Your task to perform on an android device: Who is the president of France? Image 0: 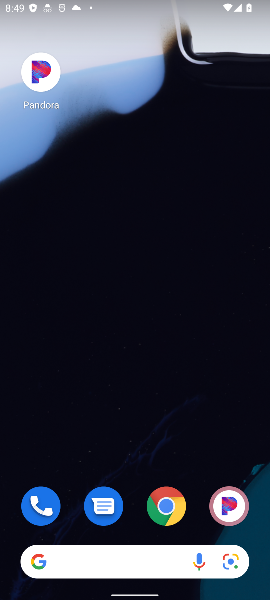
Step 0: click (170, 512)
Your task to perform on an android device: Who is the president of France? Image 1: 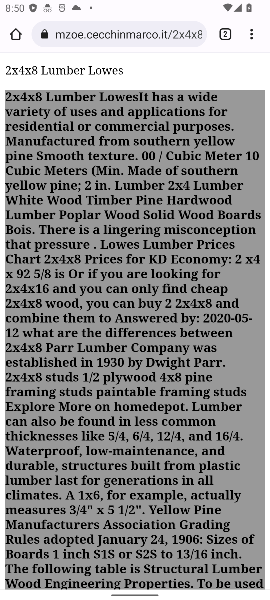
Step 1: click (100, 33)
Your task to perform on an android device: Who is the president of France? Image 2: 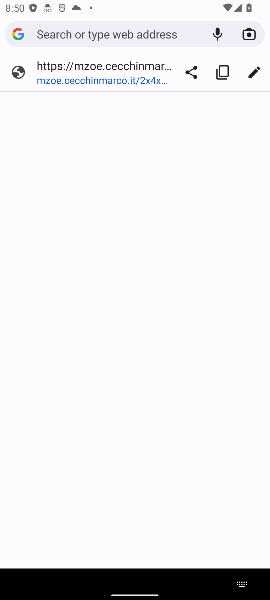
Step 2: type "president of France"
Your task to perform on an android device: Who is the president of France? Image 3: 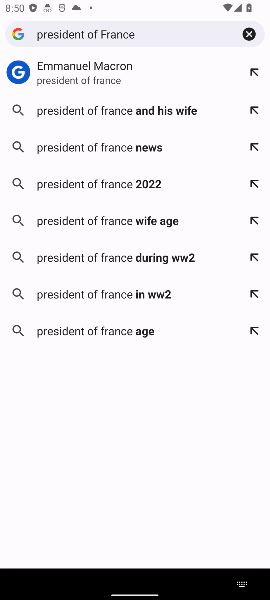
Step 3: click (103, 118)
Your task to perform on an android device: Who is the president of France? Image 4: 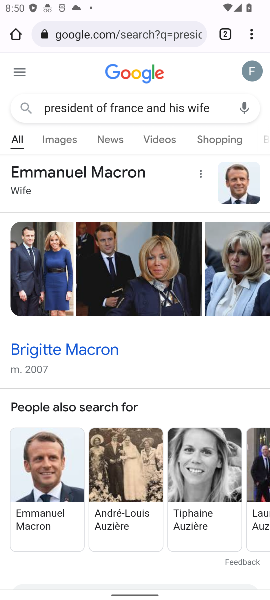
Step 4: drag from (85, 433) to (151, 236)
Your task to perform on an android device: Who is the president of France? Image 5: 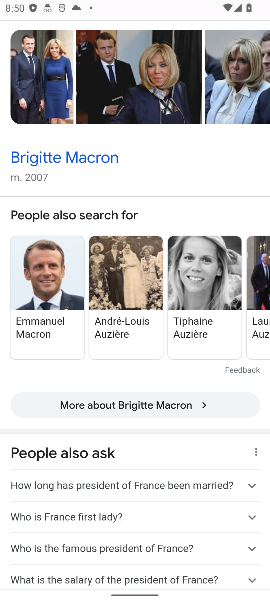
Step 5: drag from (203, 511) to (189, 382)
Your task to perform on an android device: Who is the president of France? Image 6: 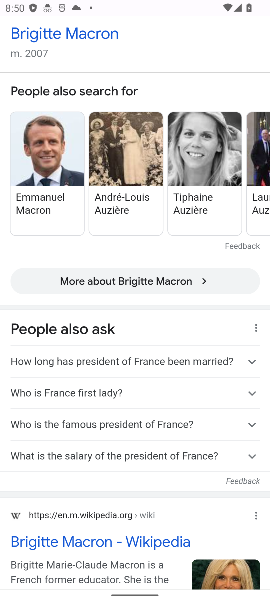
Step 6: drag from (180, 499) to (161, 275)
Your task to perform on an android device: Who is the president of France? Image 7: 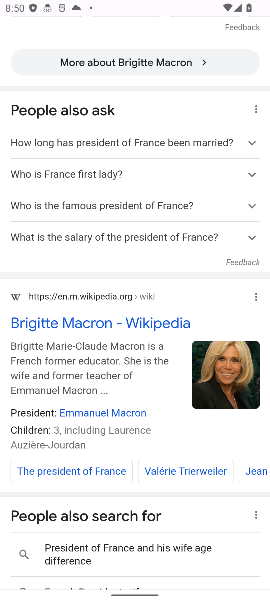
Step 7: drag from (158, 459) to (162, 351)
Your task to perform on an android device: Who is the president of France? Image 8: 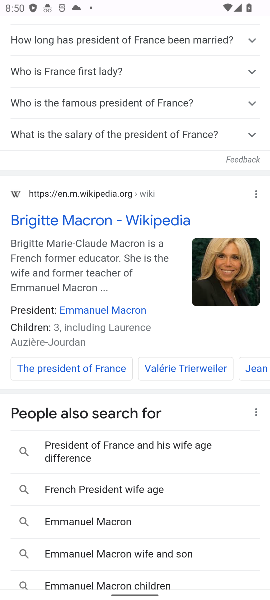
Step 8: drag from (165, 457) to (133, 126)
Your task to perform on an android device: Who is the president of France? Image 9: 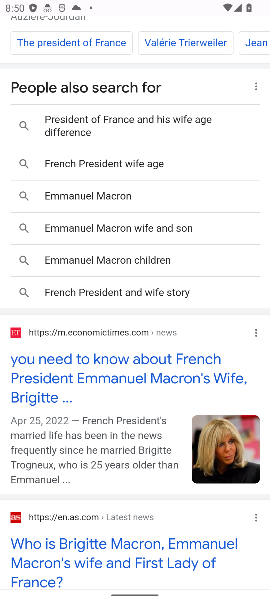
Step 9: drag from (103, 154) to (9, 564)
Your task to perform on an android device: Who is the president of France? Image 10: 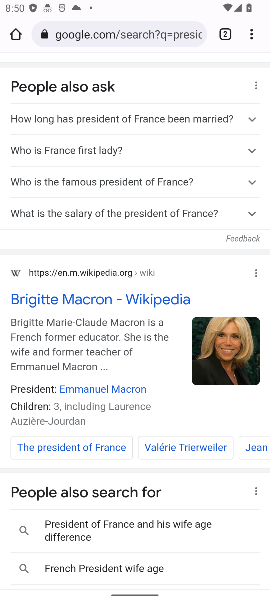
Step 10: drag from (94, 185) to (69, 582)
Your task to perform on an android device: Who is the president of France? Image 11: 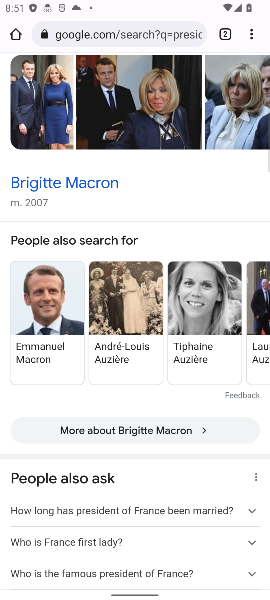
Step 11: drag from (112, 387) to (89, 588)
Your task to perform on an android device: Who is the president of France? Image 12: 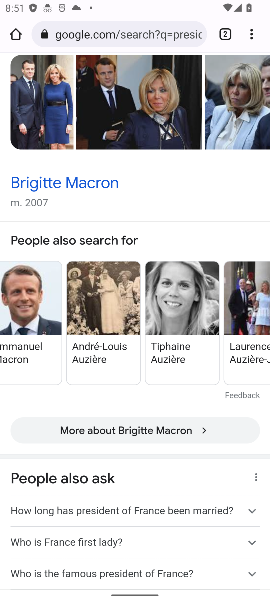
Step 12: drag from (171, 332) to (170, 593)
Your task to perform on an android device: Who is the president of France? Image 13: 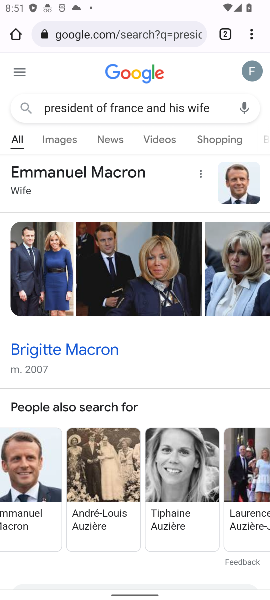
Step 13: click (211, 108)
Your task to perform on an android device: Who is the president of France? Image 14: 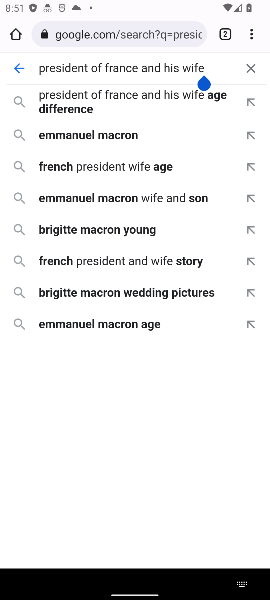
Step 14: type "Who is the president of France"
Your task to perform on an android device: Who is the president of France? Image 15: 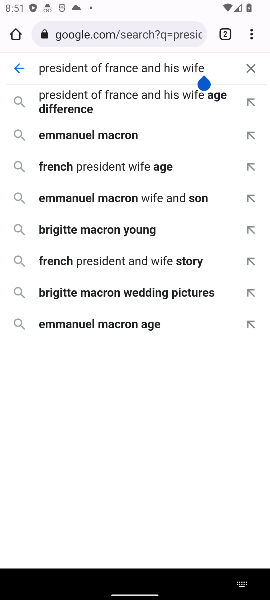
Step 15: click (251, 61)
Your task to perform on an android device: Who is the president of France? Image 16: 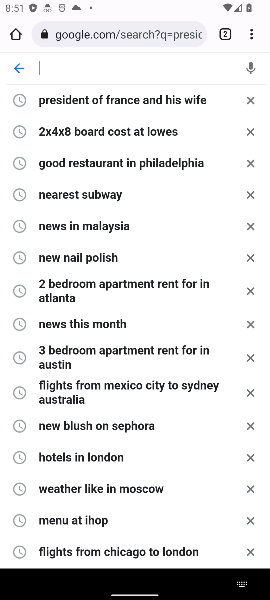
Step 16: type "Who is the president of France"
Your task to perform on an android device: Who is the president of France? Image 17: 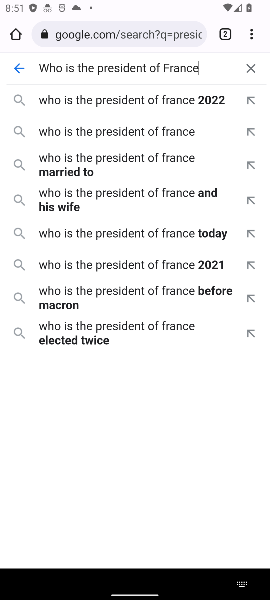
Step 17: click (167, 99)
Your task to perform on an android device: Who is the president of France? Image 18: 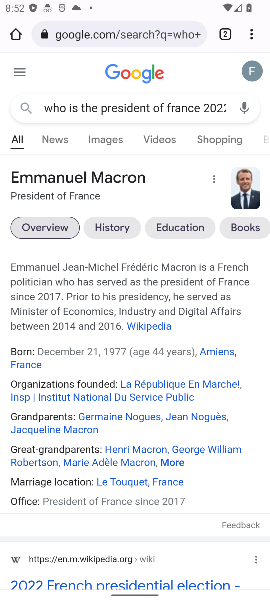
Step 18: task complete